Your task to perform on an android device: choose inbox layout in the gmail app Image 0: 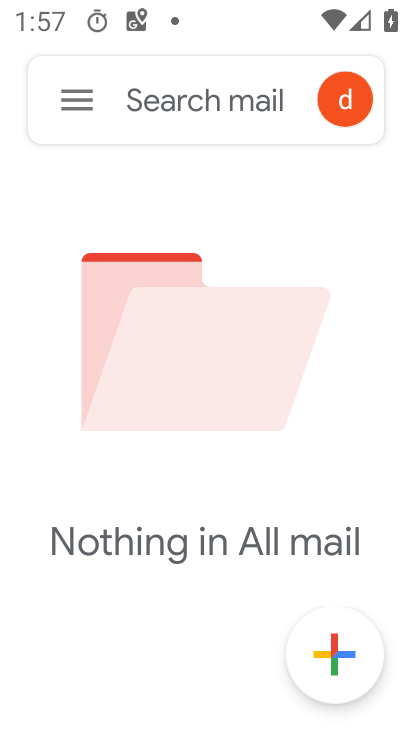
Step 0: press home button
Your task to perform on an android device: choose inbox layout in the gmail app Image 1: 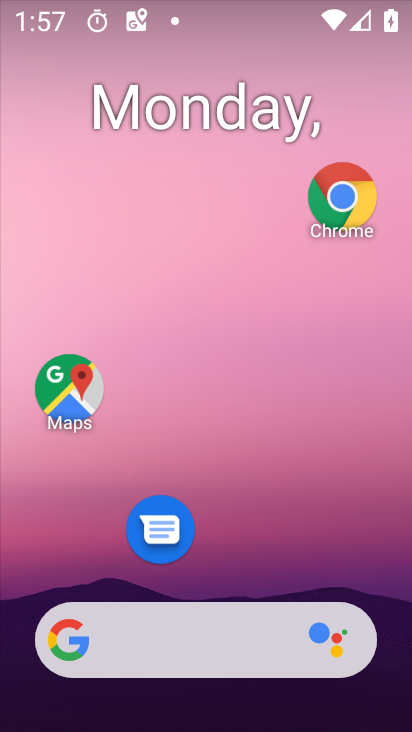
Step 1: drag from (194, 590) to (120, 37)
Your task to perform on an android device: choose inbox layout in the gmail app Image 2: 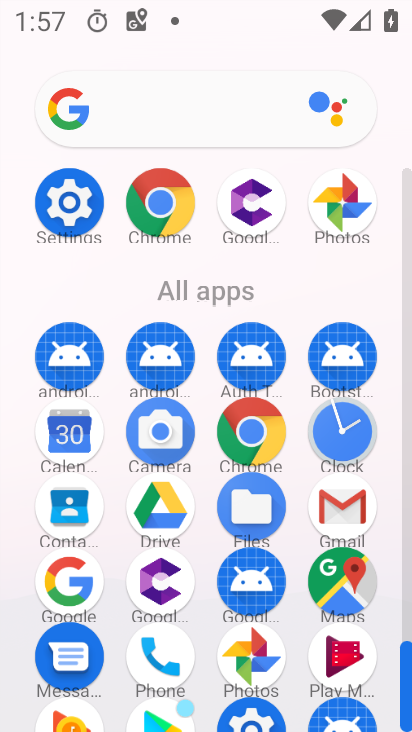
Step 2: click (340, 500)
Your task to perform on an android device: choose inbox layout in the gmail app Image 3: 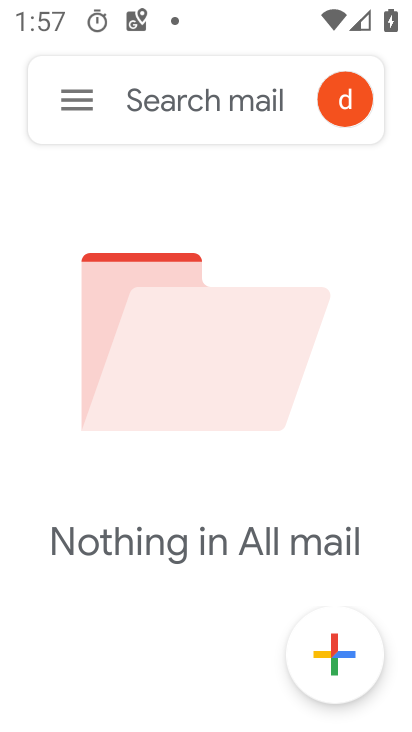
Step 3: click (55, 103)
Your task to perform on an android device: choose inbox layout in the gmail app Image 4: 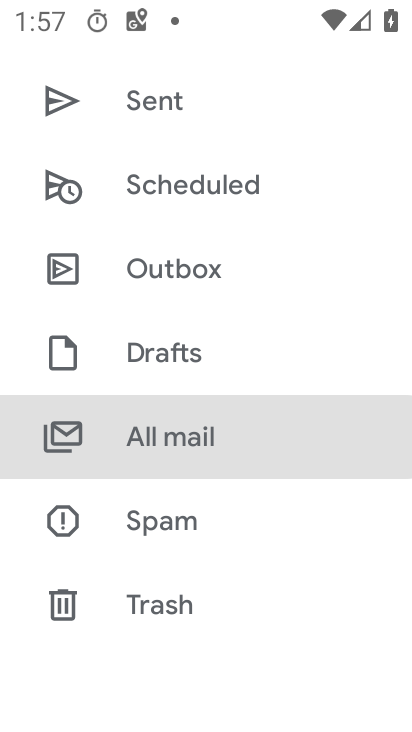
Step 4: drag from (174, 534) to (163, 16)
Your task to perform on an android device: choose inbox layout in the gmail app Image 5: 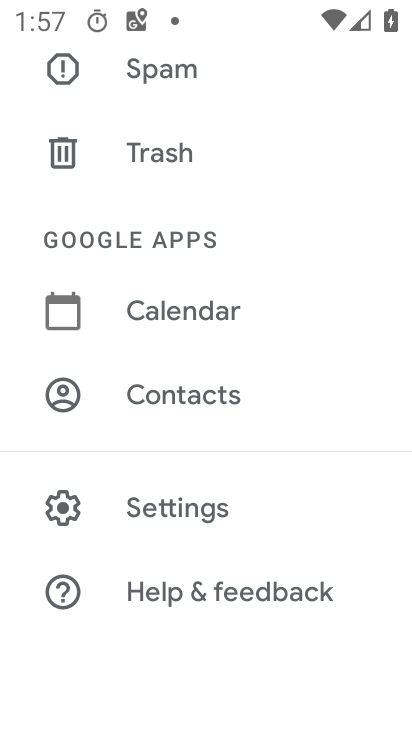
Step 5: click (195, 517)
Your task to perform on an android device: choose inbox layout in the gmail app Image 6: 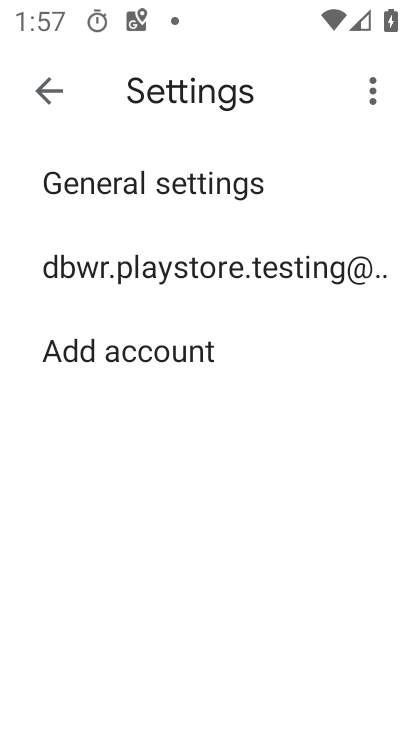
Step 6: click (168, 272)
Your task to perform on an android device: choose inbox layout in the gmail app Image 7: 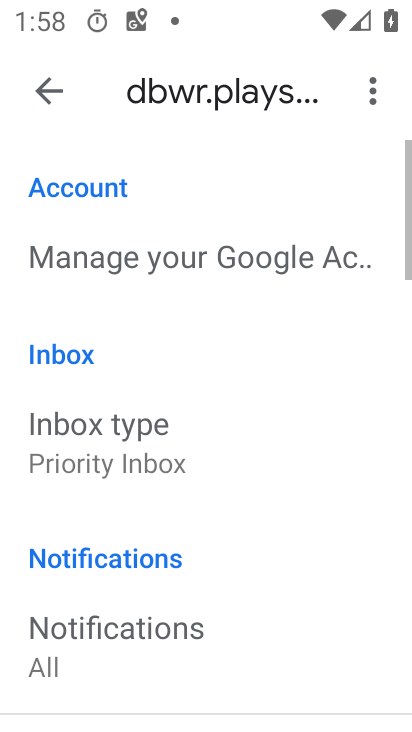
Step 7: click (132, 440)
Your task to perform on an android device: choose inbox layout in the gmail app Image 8: 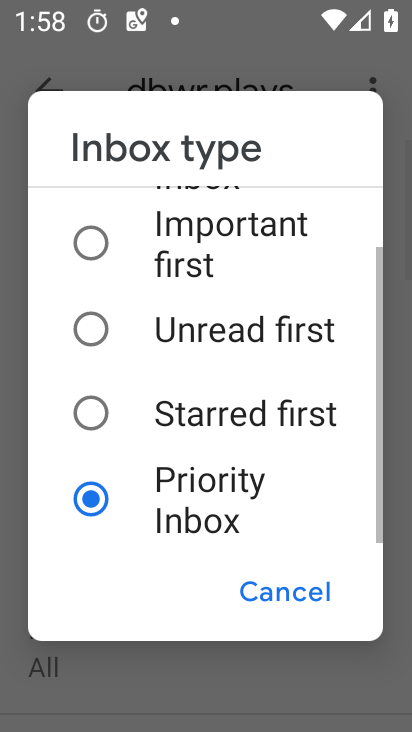
Step 8: drag from (151, 278) to (151, 637)
Your task to perform on an android device: choose inbox layout in the gmail app Image 9: 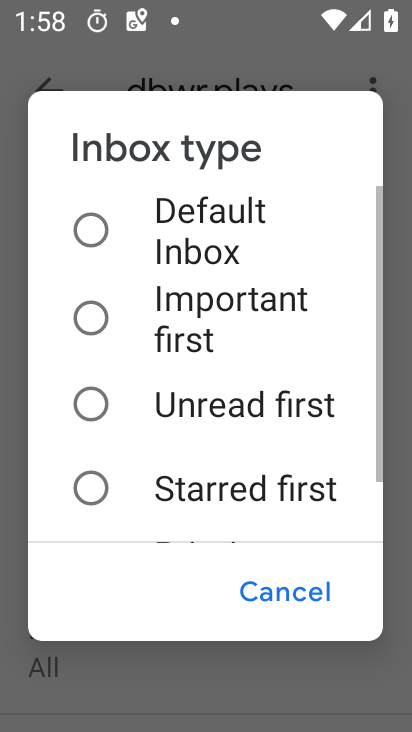
Step 9: click (244, 578)
Your task to perform on an android device: choose inbox layout in the gmail app Image 10: 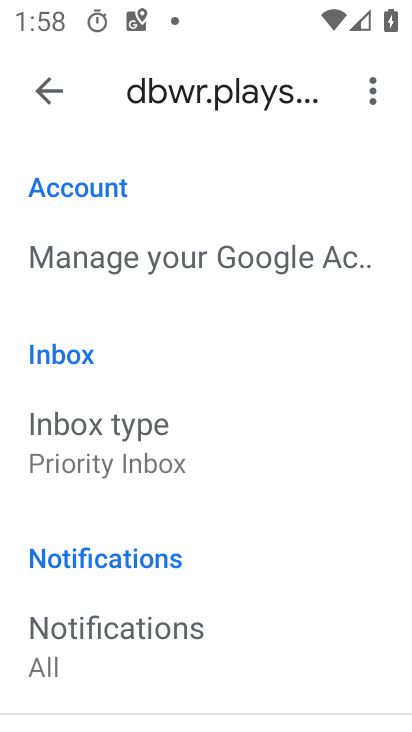
Step 10: click (39, 83)
Your task to perform on an android device: choose inbox layout in the gmail app Image 11: 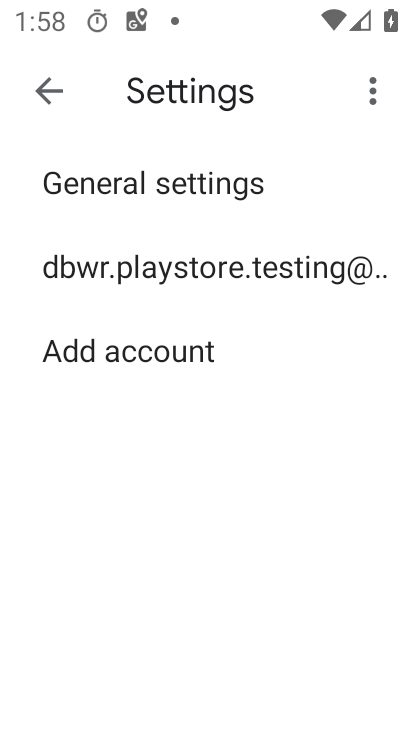
Step 11: click (40, 84)
Your task to perform on an android device: choose inbox layout in the gmail app Image 12: 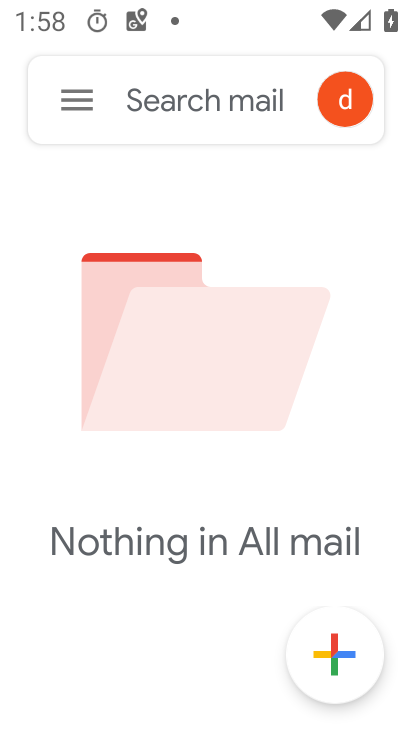
Step 12: click (68, 100)
Your task to perform on an android device: choose inbox layout in the gmail app Image 13: 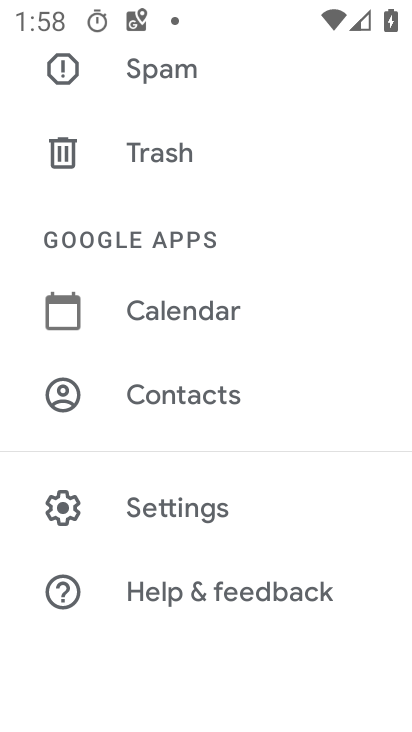
Step 13: drag from (149, 143) to (138, 729)
Your task to perform on an android device: choose inbox layout in the gmail app Image 14: 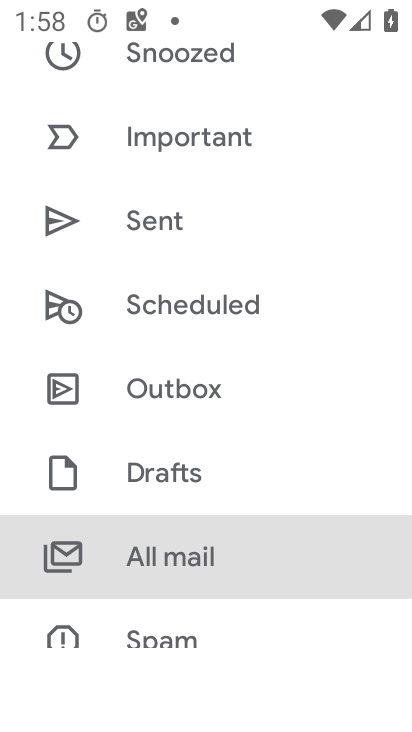
Step 14: drag from (203, 136) to (207, 571)
Your task to perform on an android device: choose inbox layout in the gmail app Image 15: 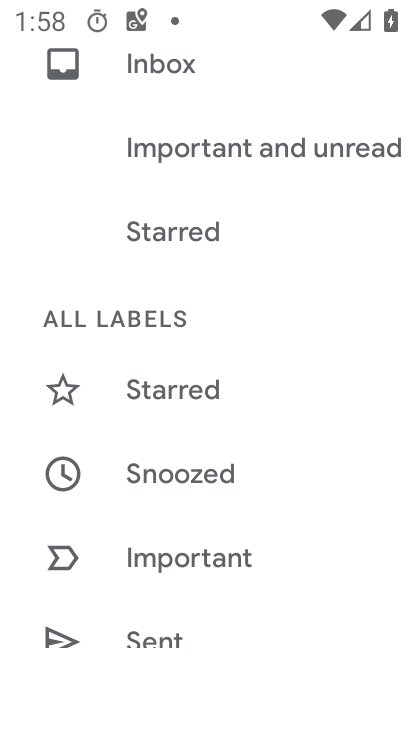
Step 15: click (190, 58)
Your task to perform on an android device: choose inbox layout in the gmail app Image 16: 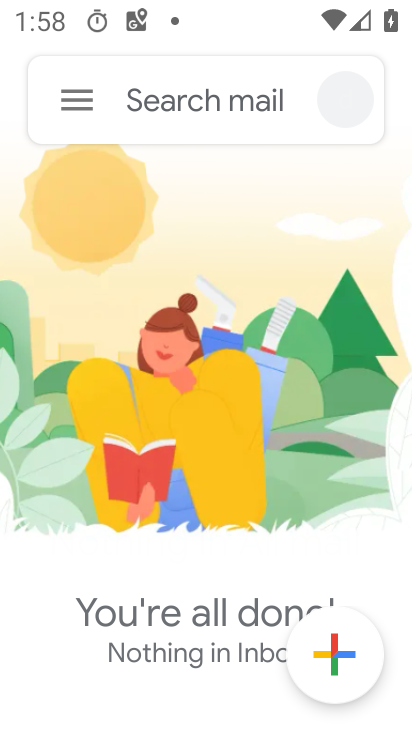
Step 16: task complete